Your task to perform on an android device: toggle wifi Image 0: 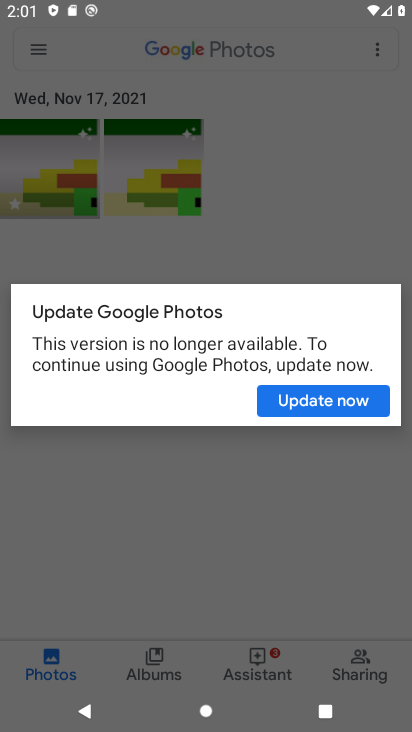
Step 0: press home button
Your task to perform on an android device: toggle wifi Image 1: 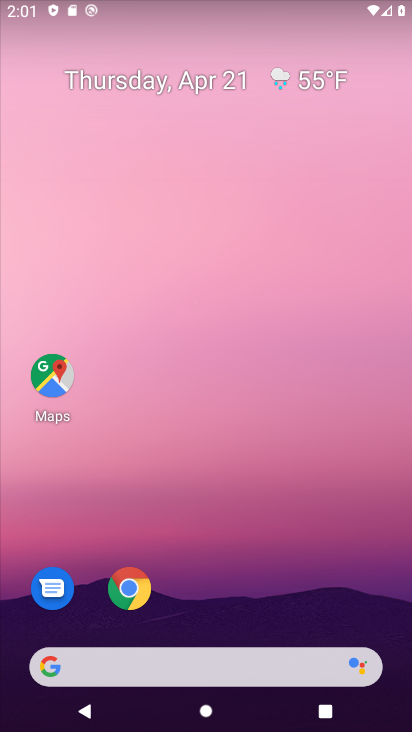
Step 1: drag from (269, 617) to (350, 114)
Your task to perform on an android device: toggle wifi Image 2: 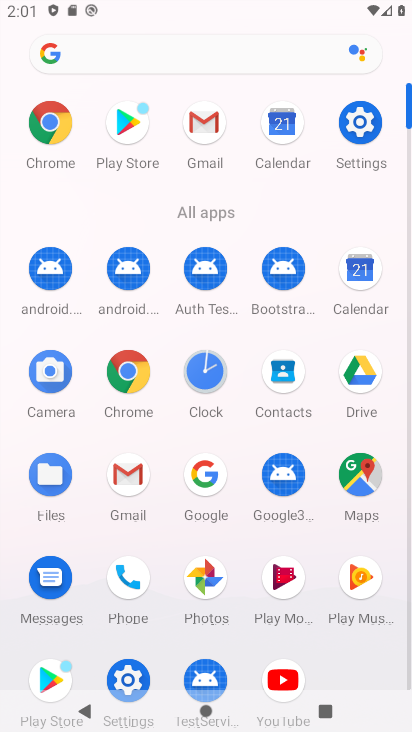
Step 2: click (355, 125)
Your task to perform on an android device: toggle wifi Image 3: 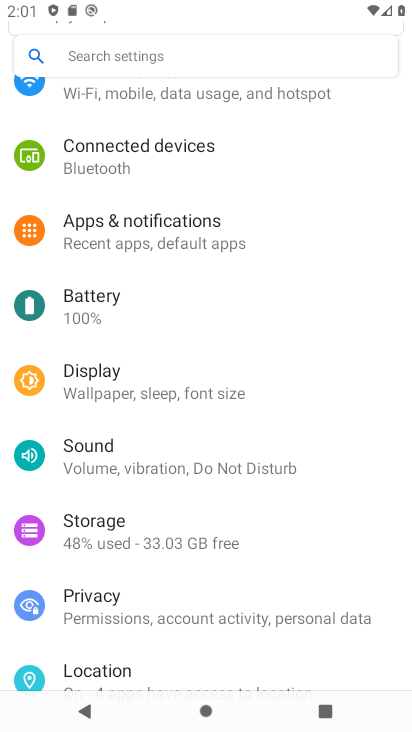
Step 3: drag from (152, 155) to (203, 327)
Your task to perform on an android device: toggle wifi Image 4: 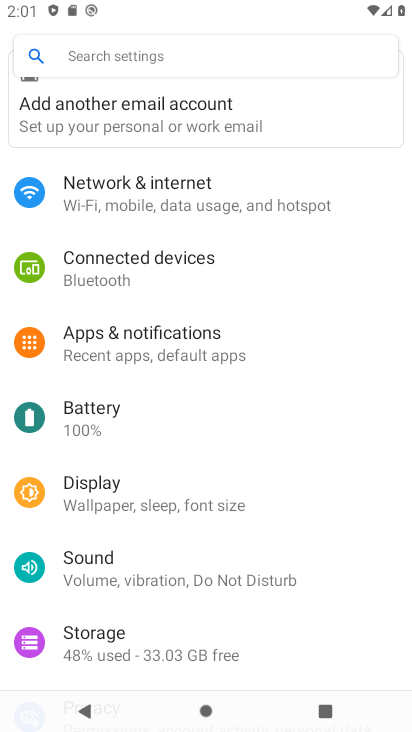
Step 4: click (131, 176)
Your task to perform on an android device: toggle wifi Image 5: 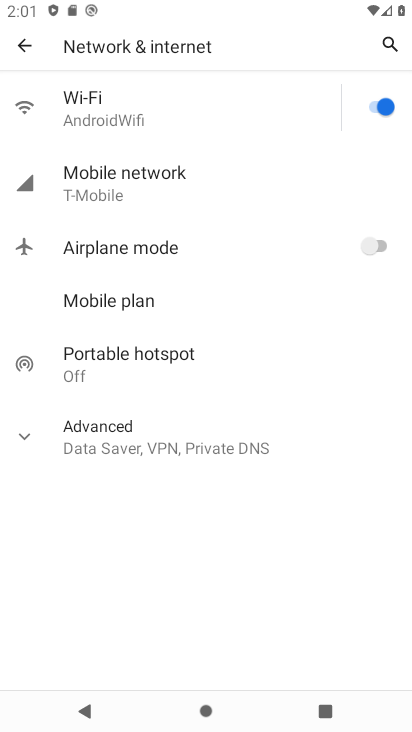
Step 5: click (352, 96)
Your task to perform on an android device: toggle wifi Image 6: 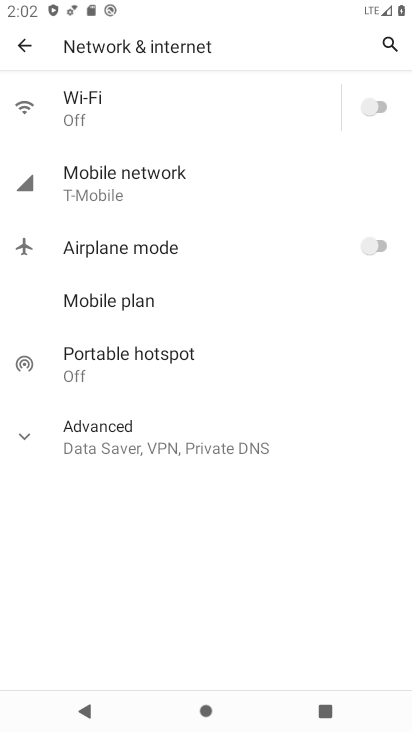
Step 6: task complete